Your task to perform on an android device: When is my next appointment? Image 0: 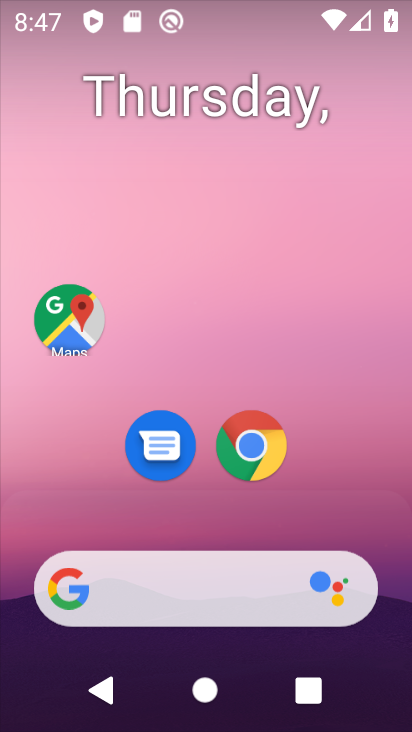
Step 0: drag from (376, 519) to (354, 44)
Your task to perform on an android device: When is my next appointment? Image 1: 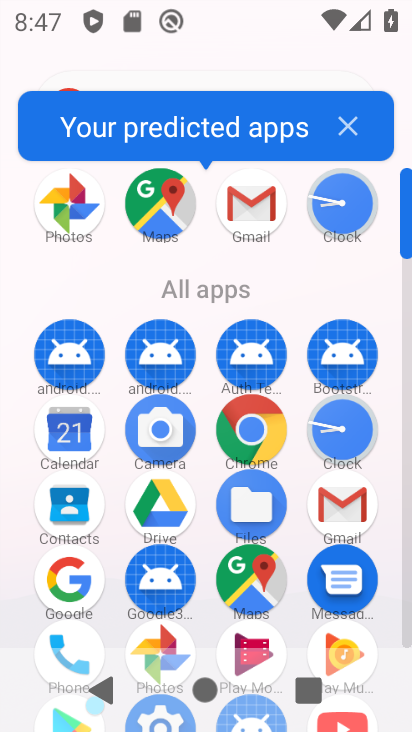
Step 1: click (56, 430)
Your task to perform on an android device: When is my next appointment? Image 2: 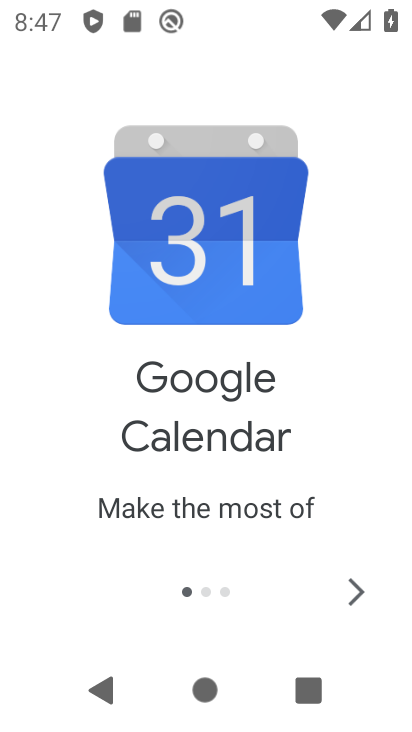
Step 2: click (351, 574)
Your task to perform on an android device: When is my next appointment? Image 3: 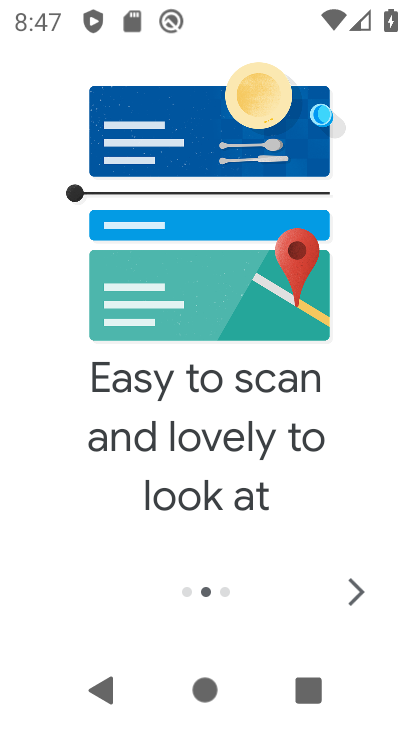
Step 3: click (351, 574)
Your task to perform on an android device: When is my next appointment? Image 4: 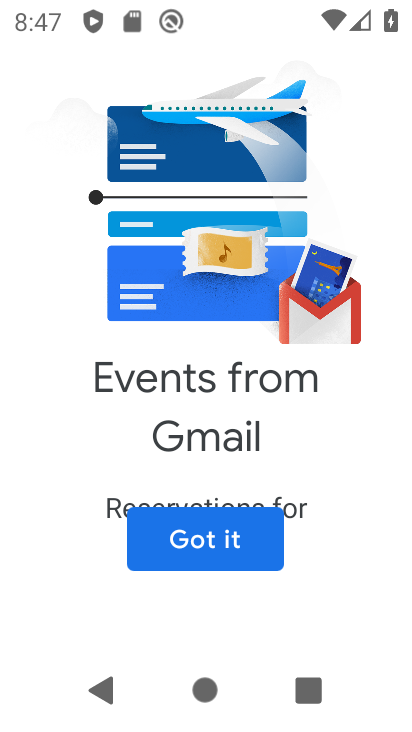
Step 4: click (201, 555)
Your task to perform on an android device: When is my next appointment? Image 5: 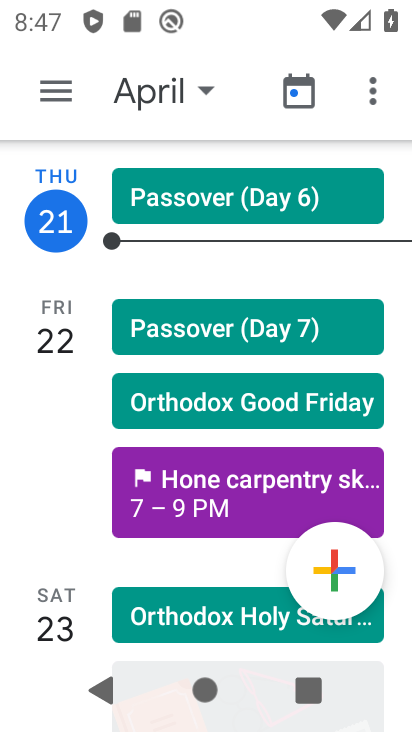
Step 5: click (44, 92)
Your task to perform on an android device: When is my next appointment? Image 6: 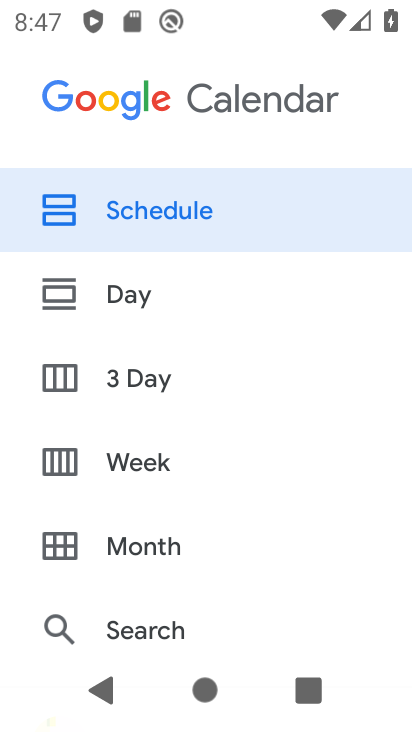
Step 6: drag from (120, 478) to (131, 134)
Your task to perform on an android device: When is my next appointment? Image 7: 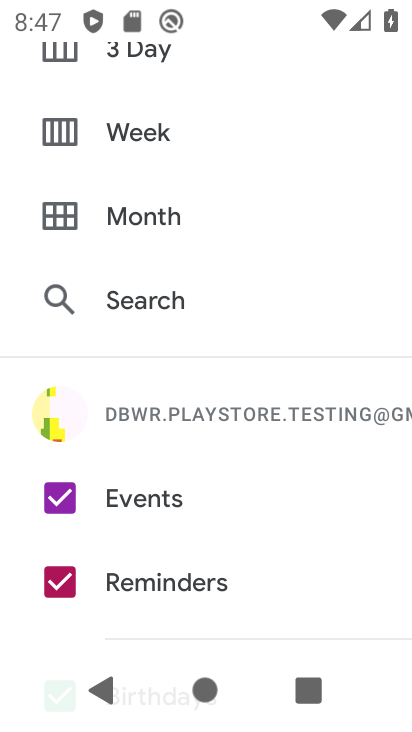
Step 7: drag from (123, 427) to (142, 184)
Your task to perform on an android device: When is my next appointment? Image 8: 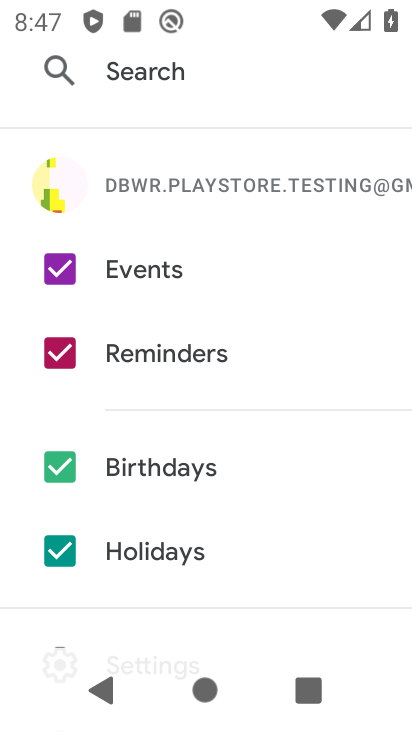
Step 8: click (61, 359)
Your task to perform on an android device: When is my next appointment? Image 9: 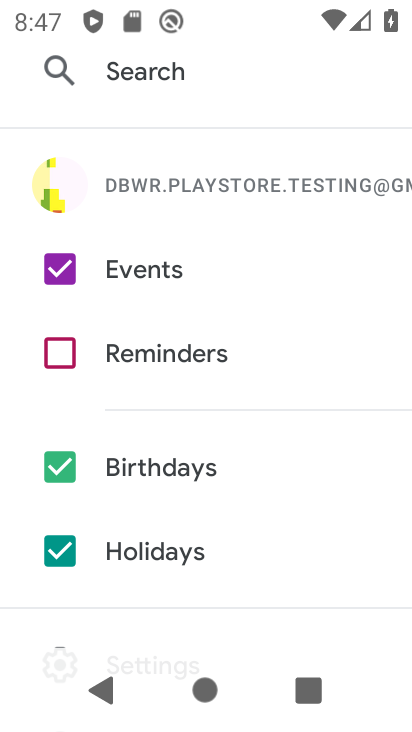
Step 9: click (61, 463)
Your task to perform on an android device: When is my next appointment? Image 10: 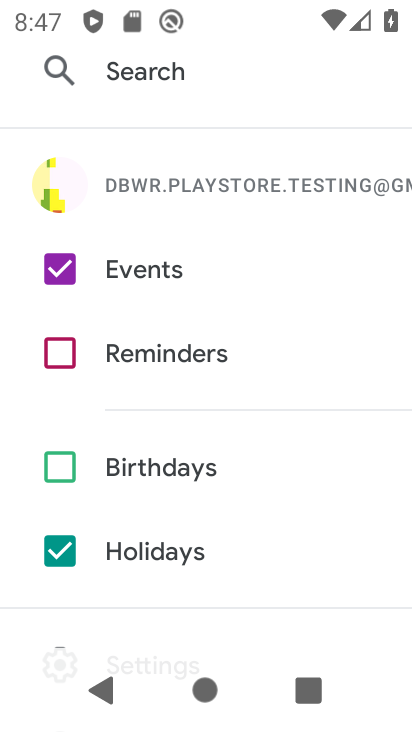
Step 10: click (68, 556)
Your task to perform on an android device: When is my next appointment? Image 11: 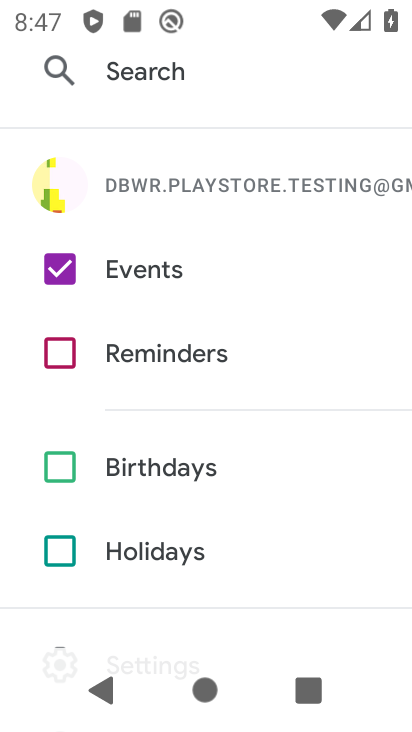
Step 11: drag from (252, 298) to (252, 560)
Your task to perform on an android device: When is my next appointment? Image 12: 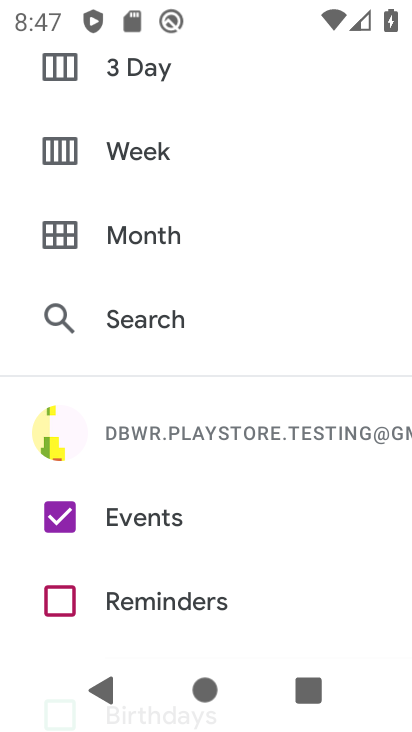
Step 12: drag from (110, 144) to (84, 403)
Your task to perform on an android device: When is my next appointment? Image 13: 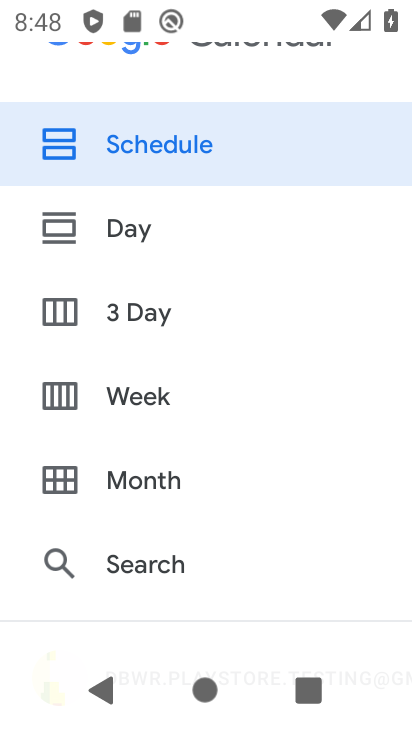
Step 13: click (73, 141)
Your task to perform on an android device: When is my next appointment? Image 14: 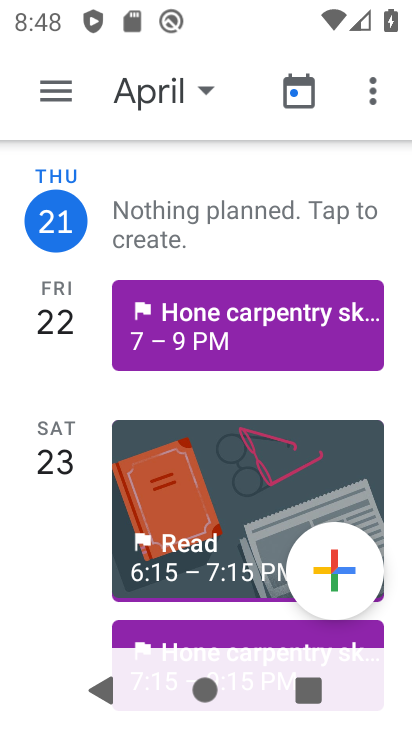
Step 14: drag from (191, 331) to (187, 483)
Your task to perform on an android device: When is my next appointment? Image 15: 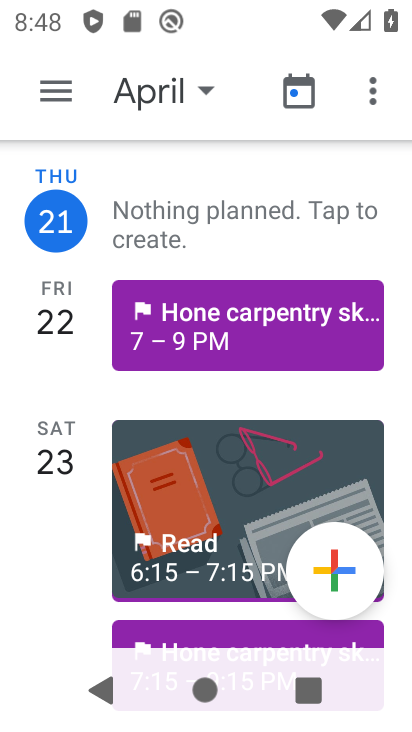
Step 15: click (228, 334)
Your task to perform on an android device: When is my next appointment? Image 16: 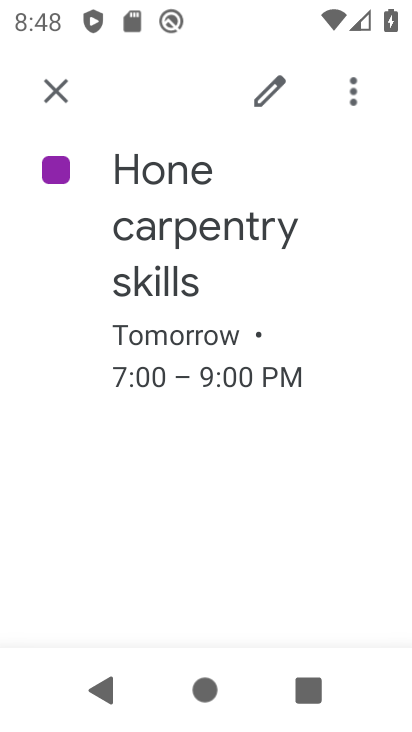
Step 16: task complete